Your task to perform on an android device: open app "VLC for Android" Image 0: 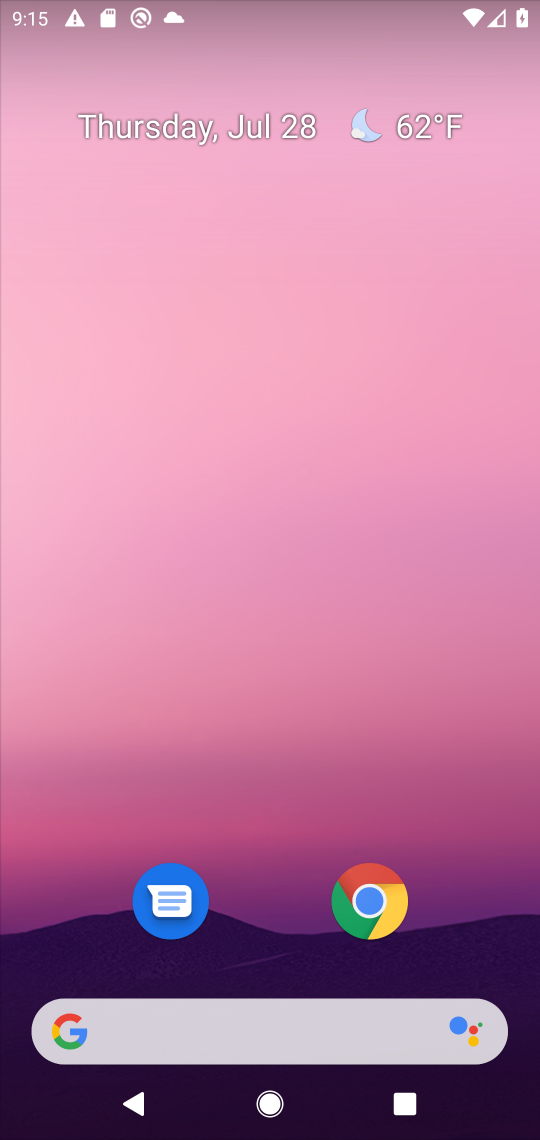
Step 0: drag from (524, 1083) to (372, 179)
Your task to perform on an android device: open app "VLC for Android" Image 1: 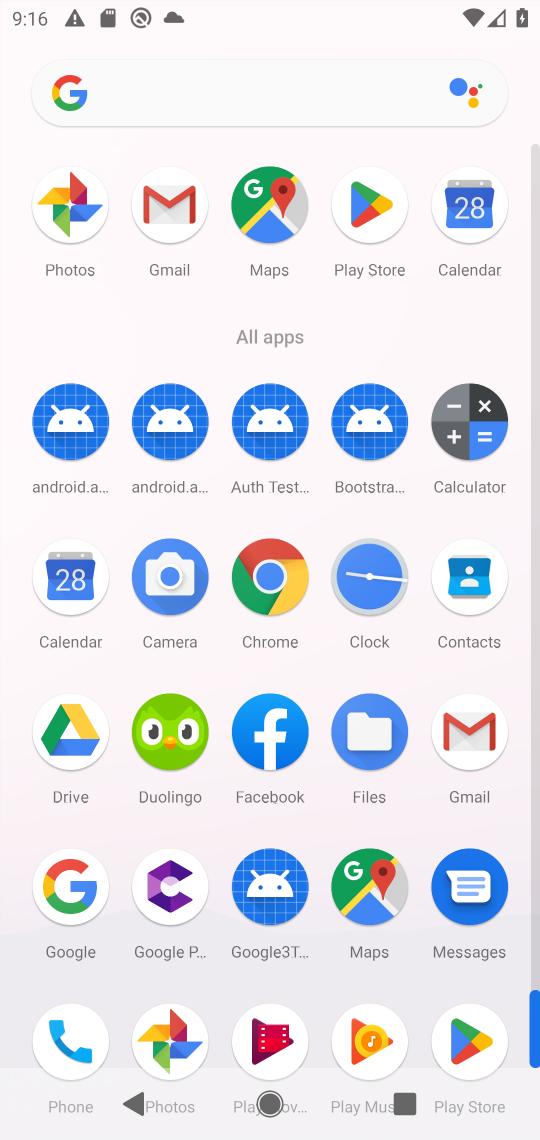
Step 1: task complete